Your task to perform on an android device: turn on priority inbox in the gmail app Image 0: 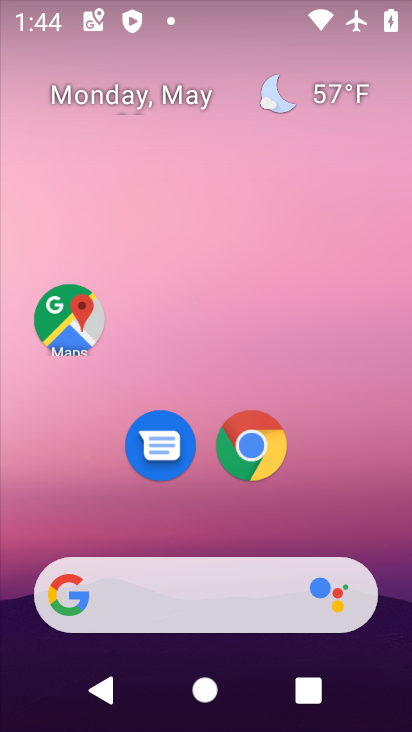
Step 0: drag from (200, 504) to (206, 57)
Your task to perform on an android device: turn on priority inbox in the gmail app Image 1: 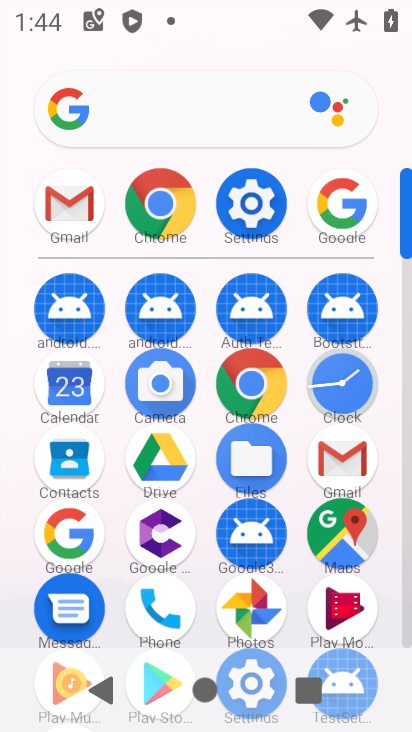
Step 1: click (71, 201)
Your task to perform on an android device: turn on priority inbox in the gmail app Image 2: 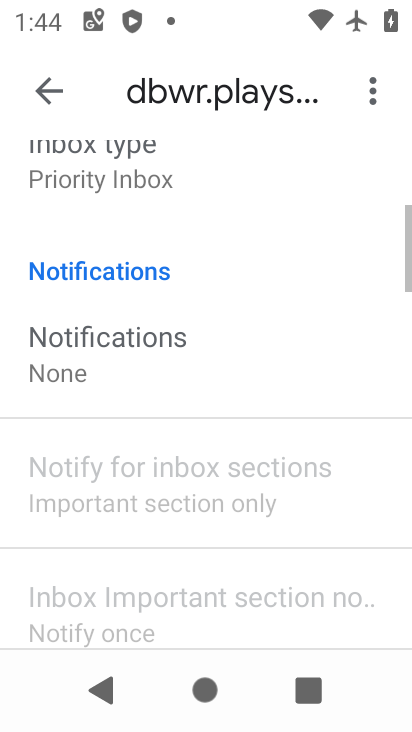
Step 2: click (123, 163)
Your task to perform on an android device: turn on priority inbox in the gmail app Image 3: 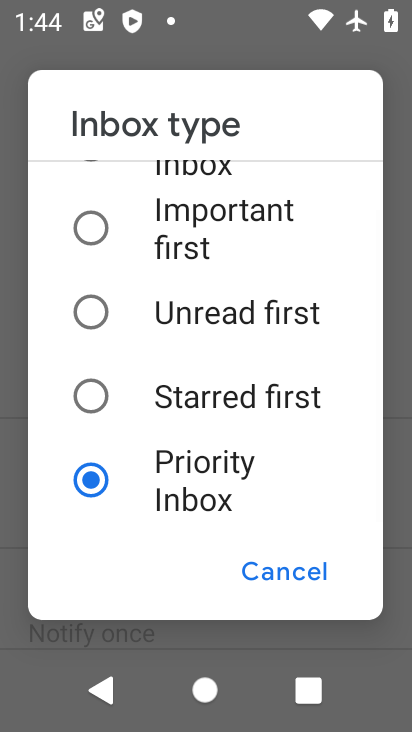
Step 3: task complete